Your task to perform on an android device: check storage Image 0: 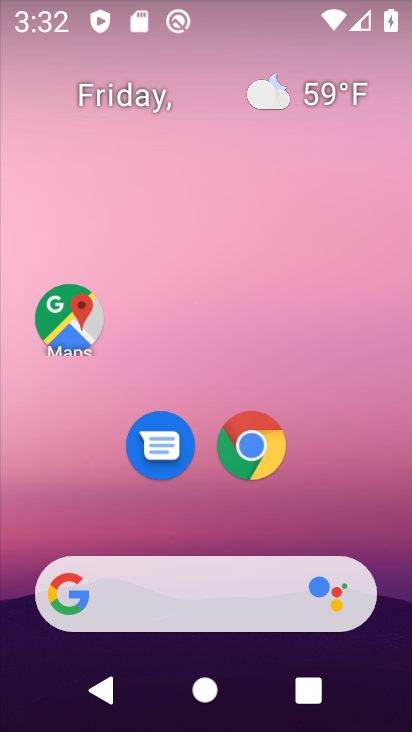
Step 0: drag from (399, 599) to (274, 58)
Your task to perform on an android device: check storage Image 1: 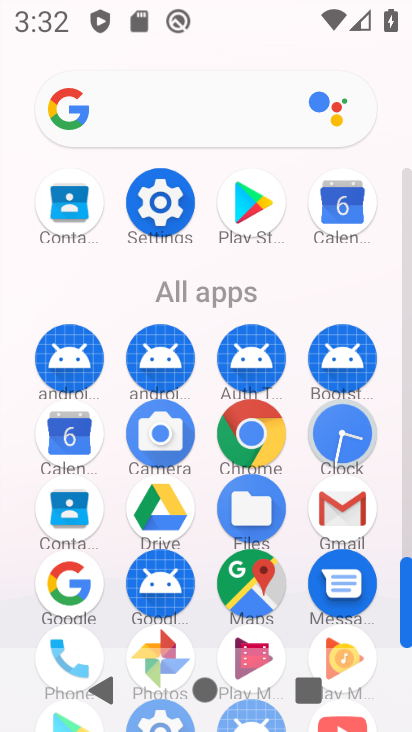
Step 1: drag from (405, 544) to (391, 438)
Your task to perform on an android device: check storage Image 2: 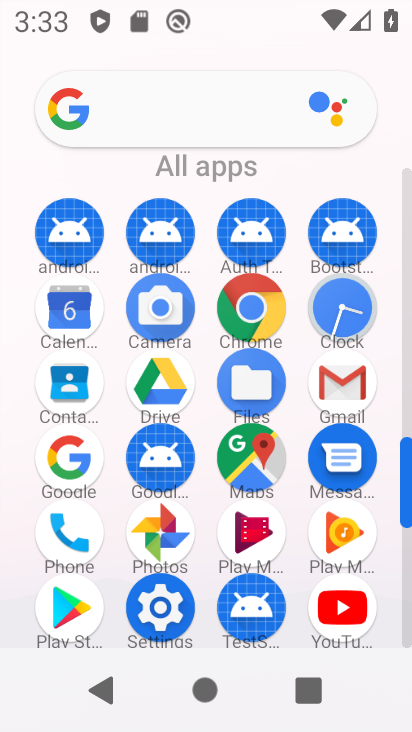
Step 2: click (160, 610)
Your task to perform on an android device: check storage Image 3: 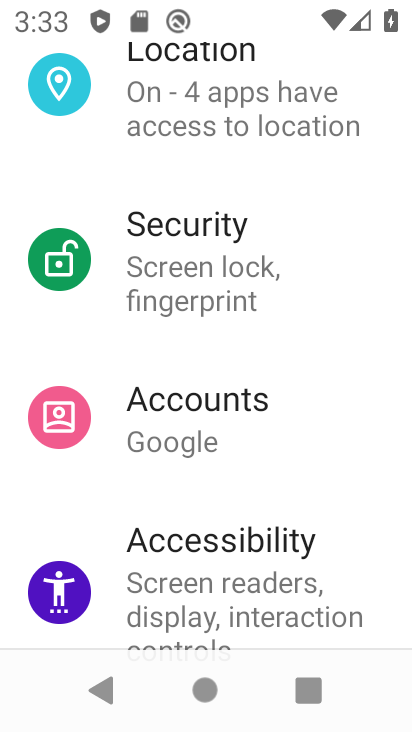
Step 3: drag from (338, 349) to (299, 577)
Your task to perform on an android device: check storage Image 4: 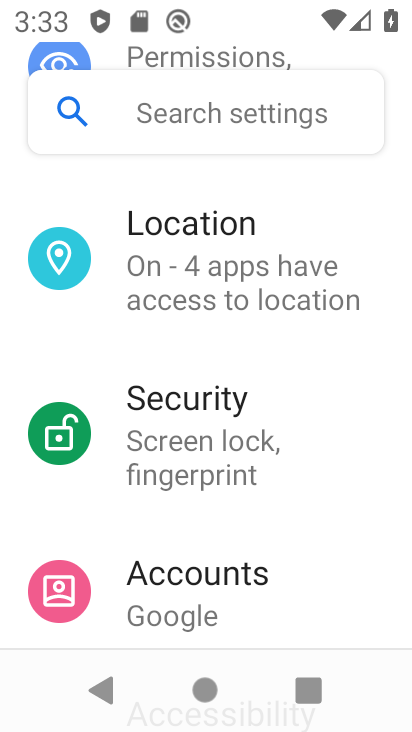
Step 4: drag from (337, 268) to (308, 559)
Your task to perform on an android device: check storage Image 5: 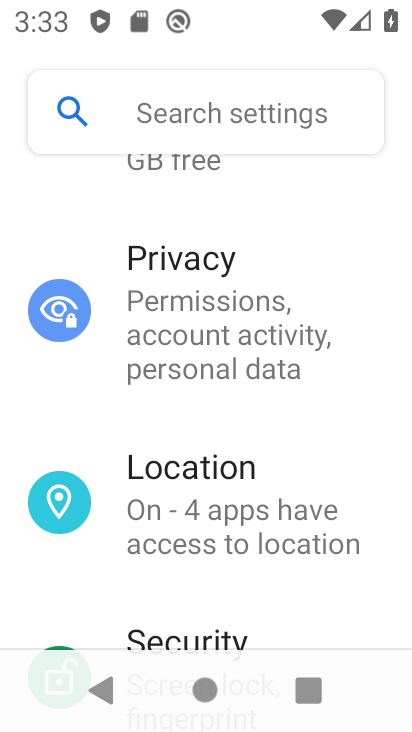
Step 5: drag from (335, 244) to (324, 560)
Your task to perform on an android device: check storage Image 6: 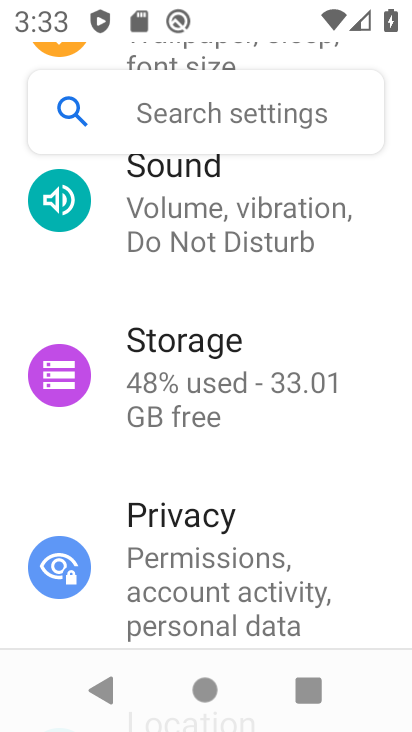
Step 6: click (165, 360)
Your task to perform on an android device: check storage Image 7: 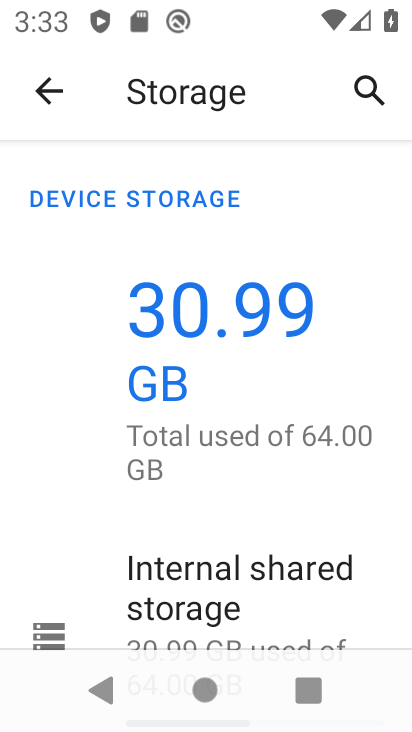
Step 7: task complete